Your task to perform on an android device: find which apps use the phone's location Image 0: 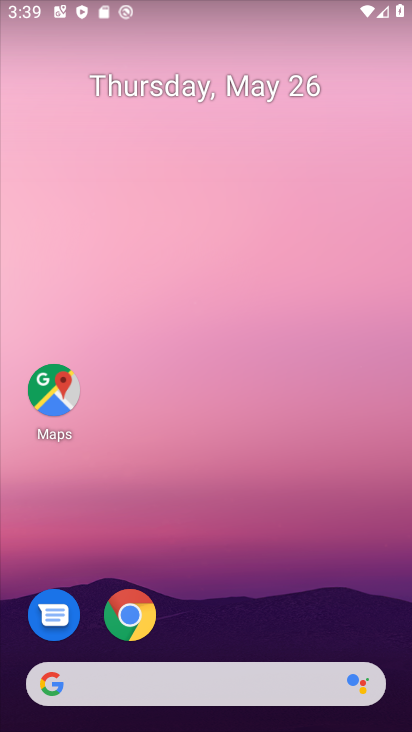
Step 0: drag from (290, 630) to (333, 184)
Your task to perform on an android device: find which apps use the phone's location Image 1: 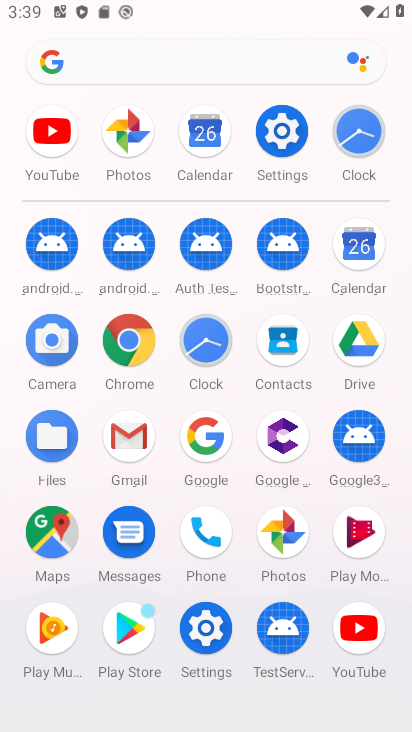
Step 1: click (214, 617)
Your task to perform on an android device: find which apps use the phone's location Image 2: 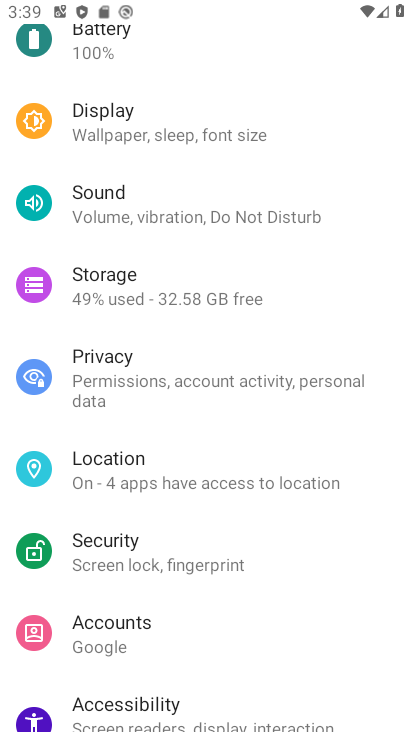
Step 2: click (232, 477)
Your task to perform on an android device: find which apps use the phone's location Image 3: 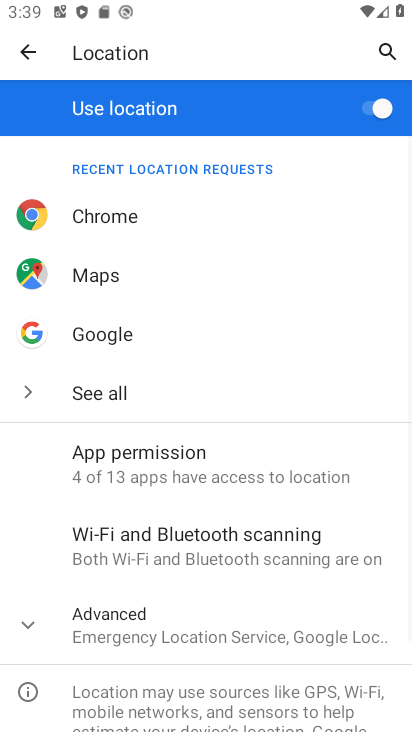
Step 3: click (222, 456)
Your task to perform on an android device: find which apps use the phone's location Image 4: 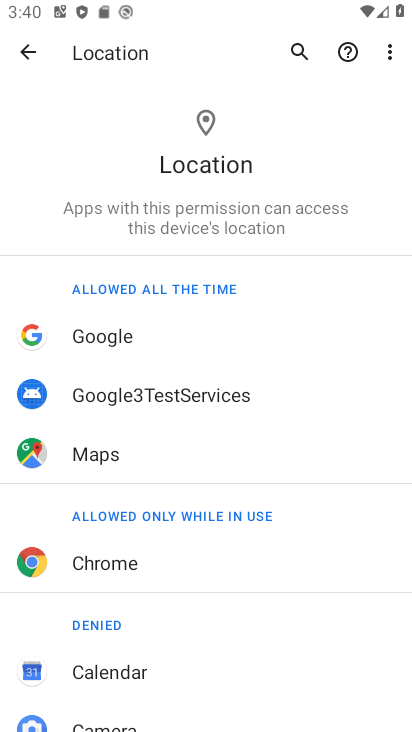
Step 4: task complete